Your task to perform on an android device: check data usage Image 0: 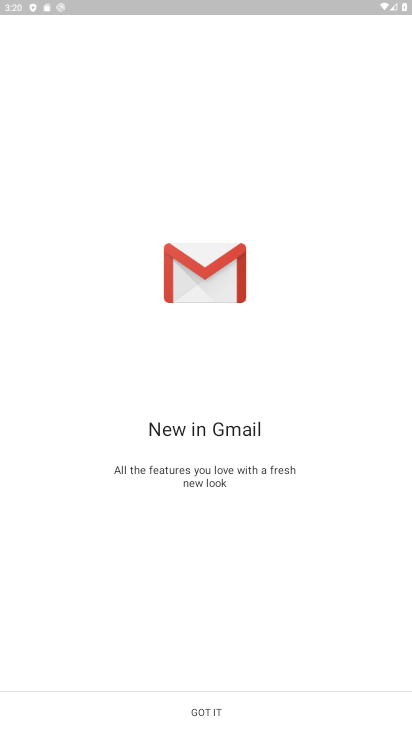
Step 0: press home button
Your task to perform on an android device: check data usage Image 1: 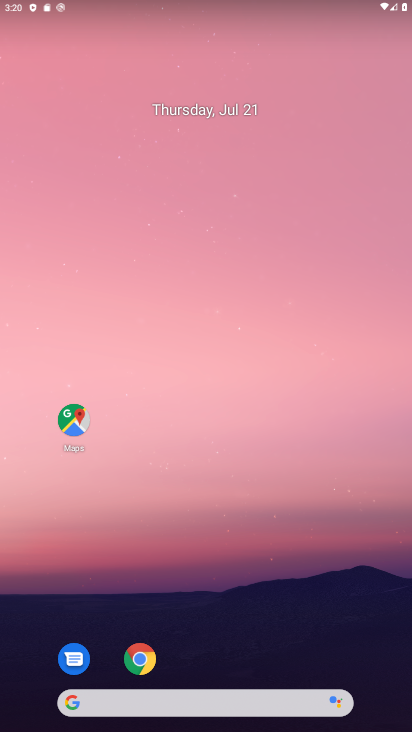
Step 1: drag from (208, 583) to (169, 100)
Your task to perform on an android device: check data usage Image 2: 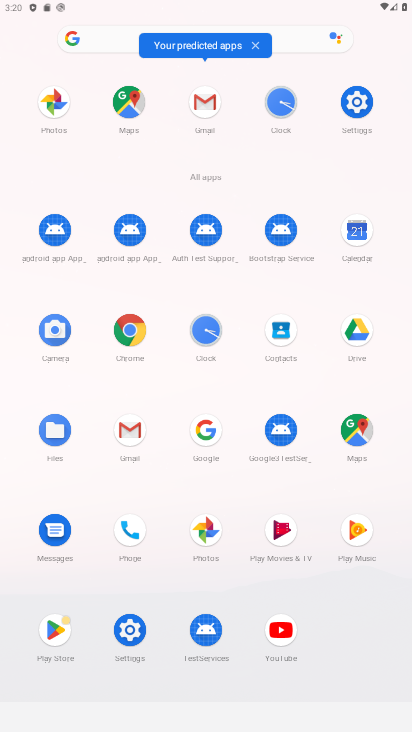
Step 2: click (353, 99)
Your task to perform on an android device: check data usage Image 3: 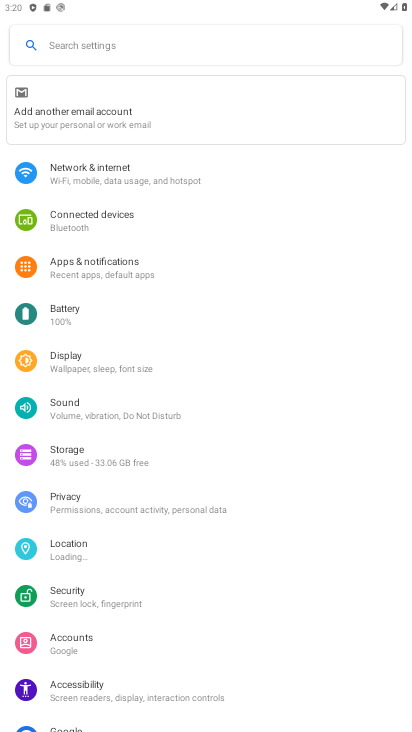
Step 3: click (89, 173)
Your task to perform on an android device: check data usage Image 4: 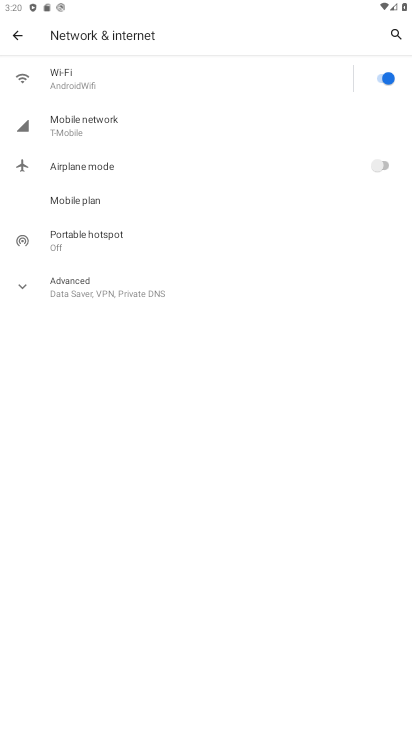
Step 4: click (63, 120)
Your task to perform on an android device: check data usage Image 5: 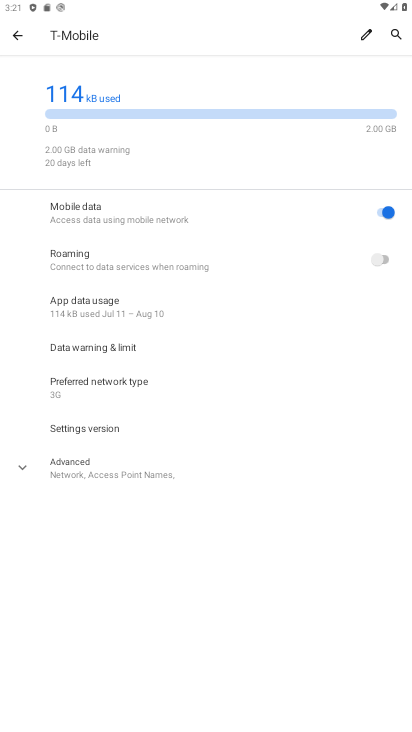
Step 5: task complete